Your task to perform on an android device: What is the news today? Image 0: 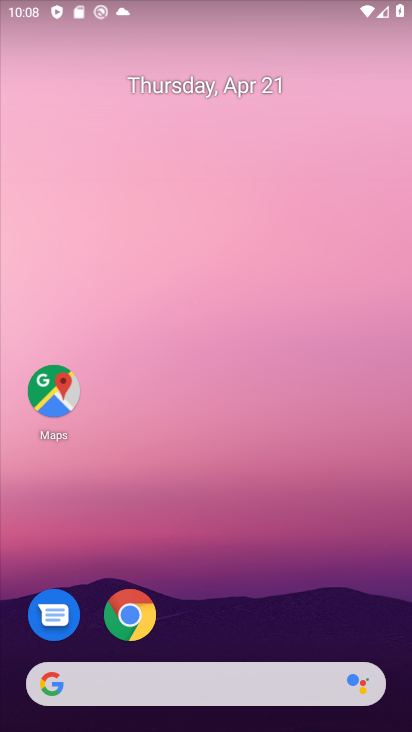
Step 0: drag from (209, 614) to (247, 46)
Your task to perform on an android device: What is the news today? Image 1: 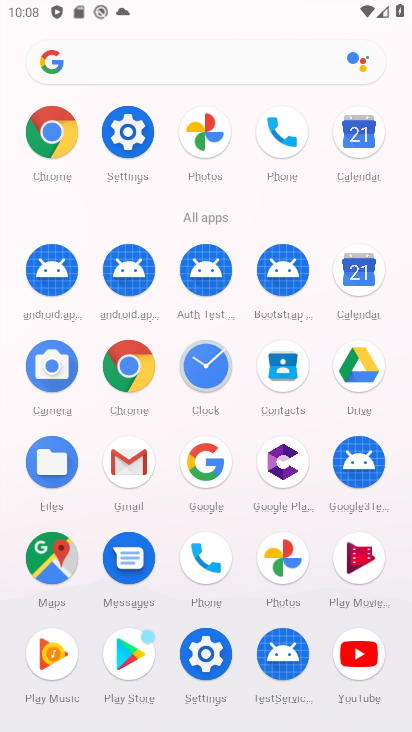
Step 1: task complete